Your task to perform on an android device: Open sound settings Image 0: 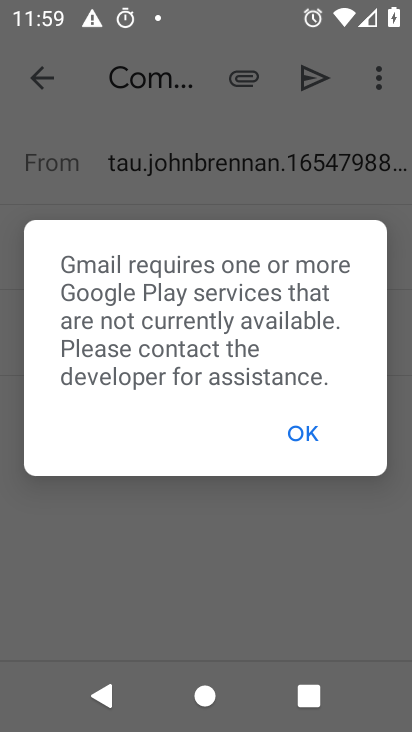
Step 0: press back button
Your task to perform on an android device: Open sound settings Image 1: 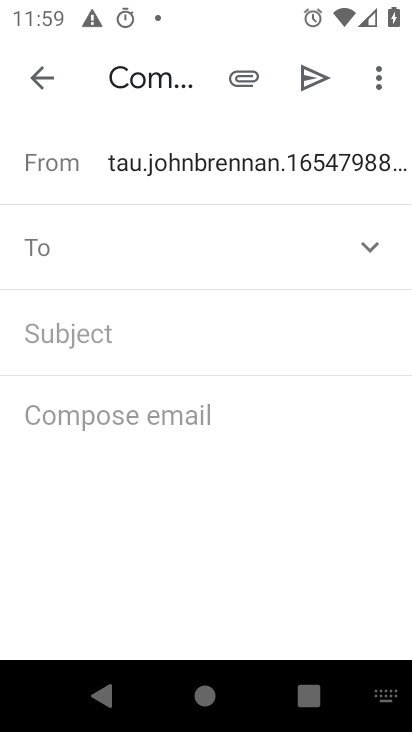
Step 1: press back button
Your task to perform on an android device: Open sound settings Image 2: 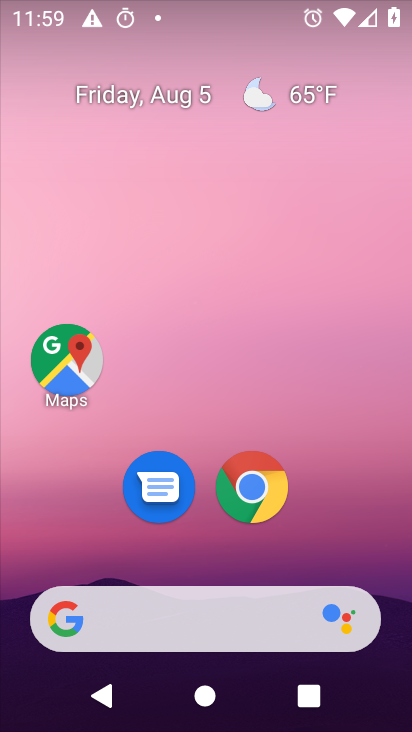
Step 2: drag from (209, 551) to (330, 19)
Your task to perform on an android device: Open sound settings Image 3: 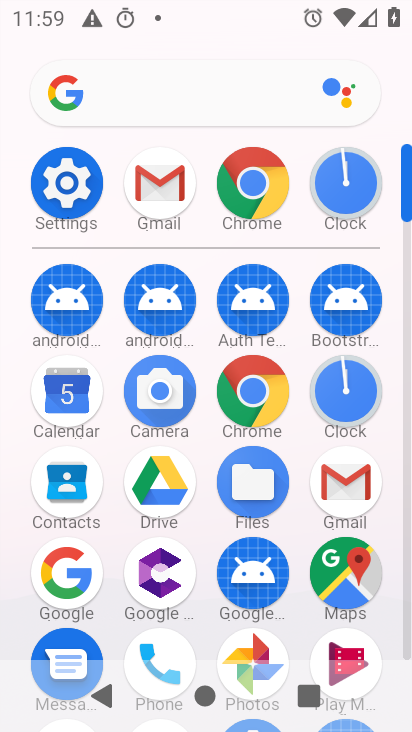
Step 3: click (63, 192)
Your task to perform on an android device: Open sound settings Image 4: 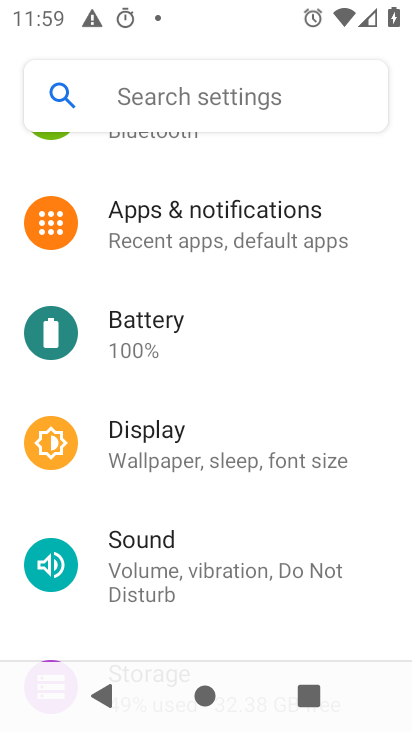
Step 4: click (157, 573)
Your task to perform on an android device: Open sound settings Image 5: 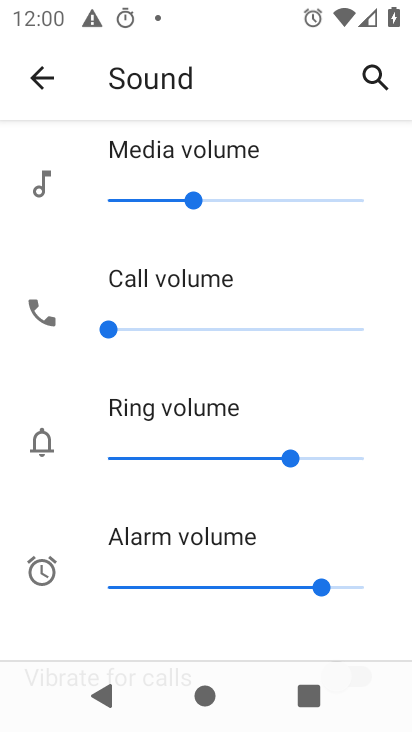
Step 5: task complete